Your task to perform on an android device: open a new tab in the chrome app Image 0: 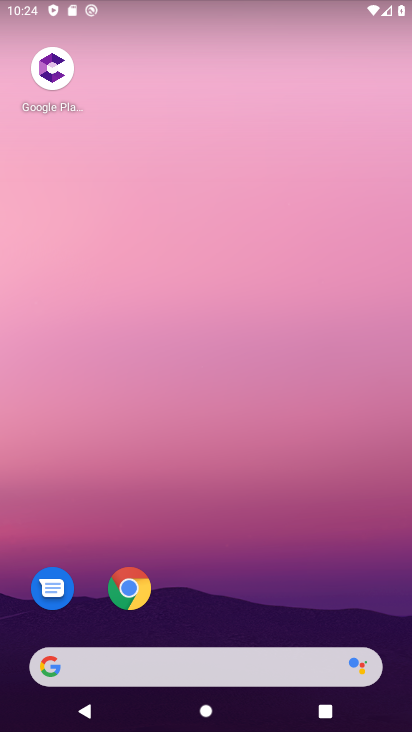
Step 0: click (145, 592)
Your task to perform on an android device: open a new tab in the chrome app Image 1: 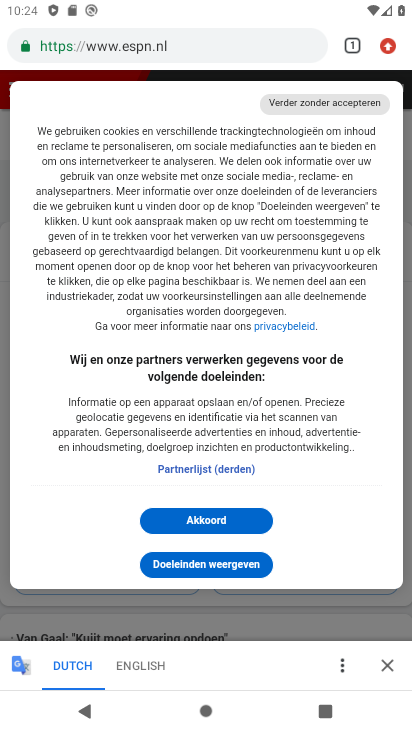
Step 1: click (383, 45)
Your task to perform on an android device: open a new tab in the chrome app Image 2: 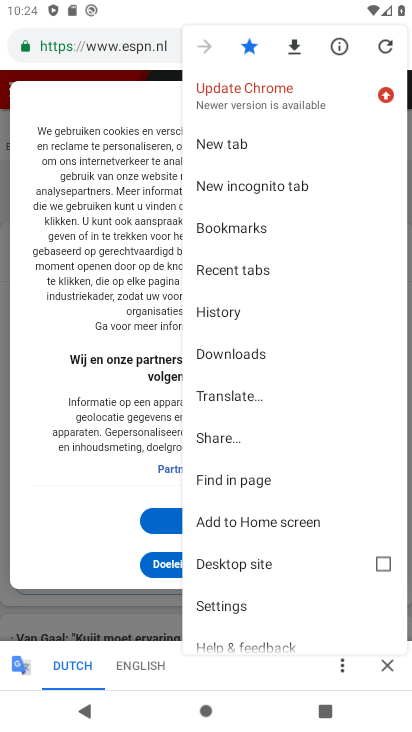
Step 2: click (223, 150)
Your task to perform on an android device: open a new tab in the chrome app Image 3: 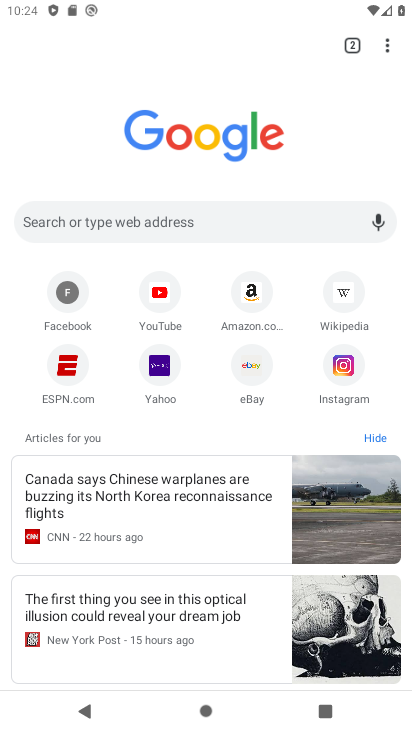
Step 3: task complete